Your task to perform on an android device: Open eBay Image 0: 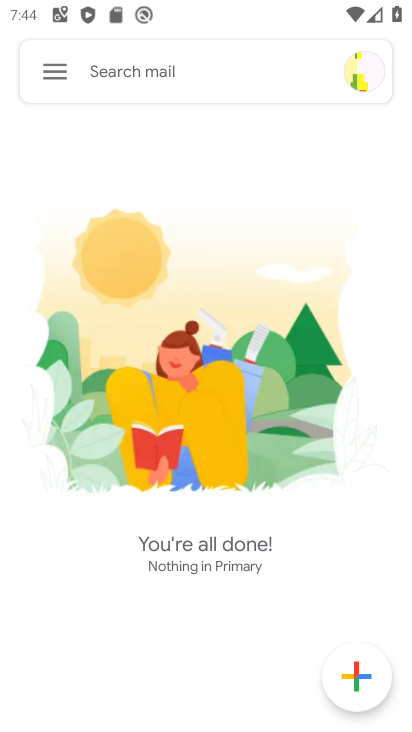
Step 0: press home button
Your task to perform on an android device: Open eBay Image 1: 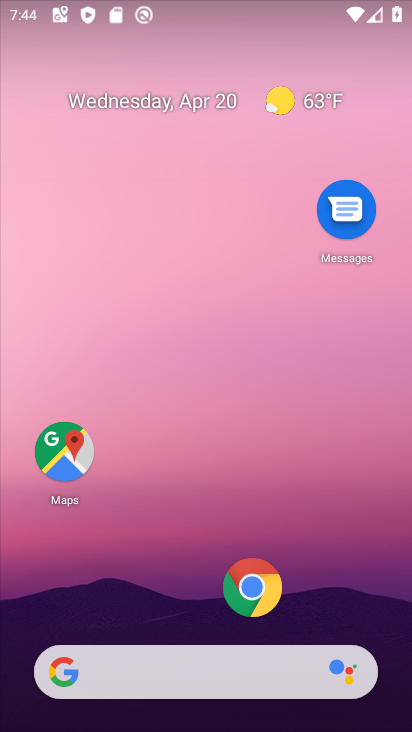
Step 1: drag from (171, 664) to (325, 25)
Your task to perform on an android device: Open eBay Image 2: 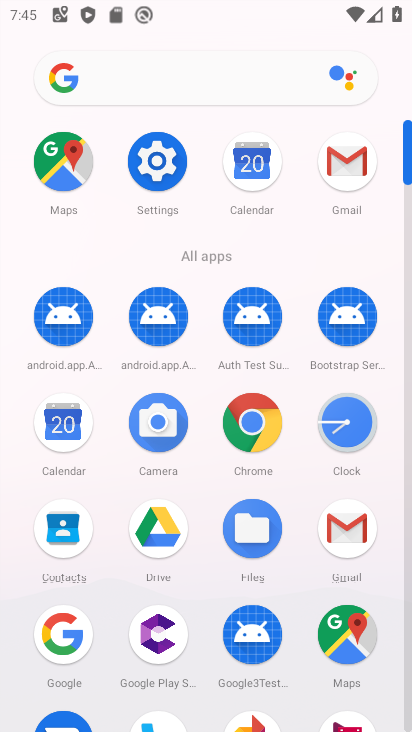
Step 2: click (250, 431)
Your task to perform on an android device: Open eBay Image 3: 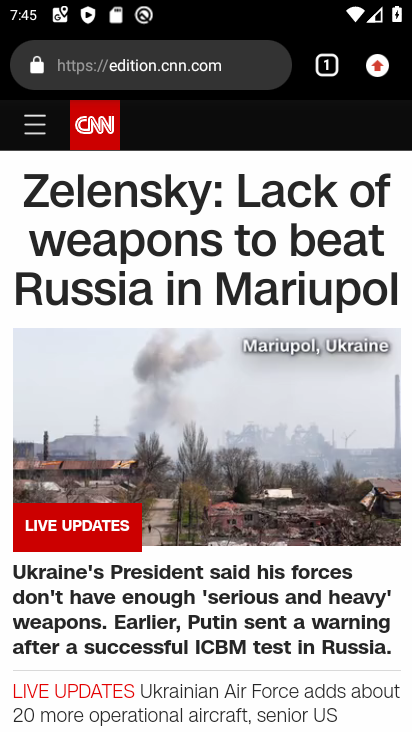
Step 3: click (386, 75)
Your task to perform on an android device: Open eBay Image 4: 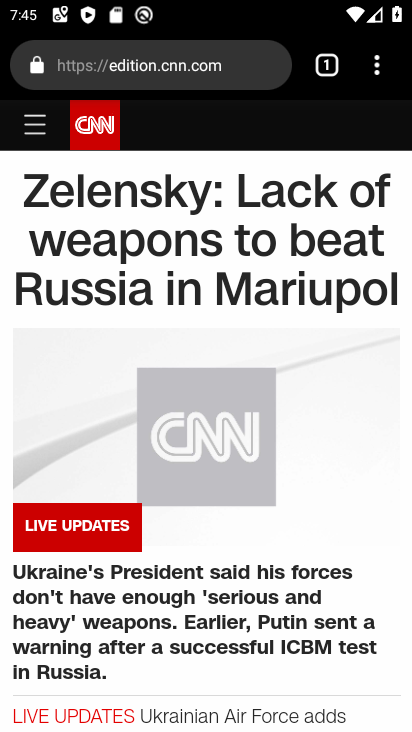
Step 4: click (374, 81)
Your task to perform on an android device: Open eBay Image 5: 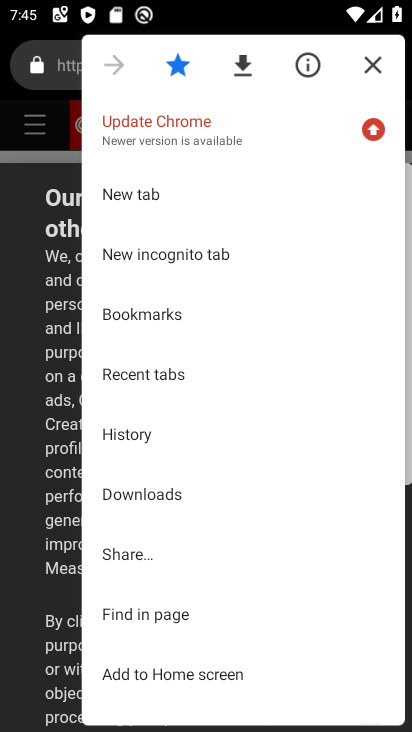
Step 5: click (133, 188)
Your task to perform on an android device: Open eBay Image 6: 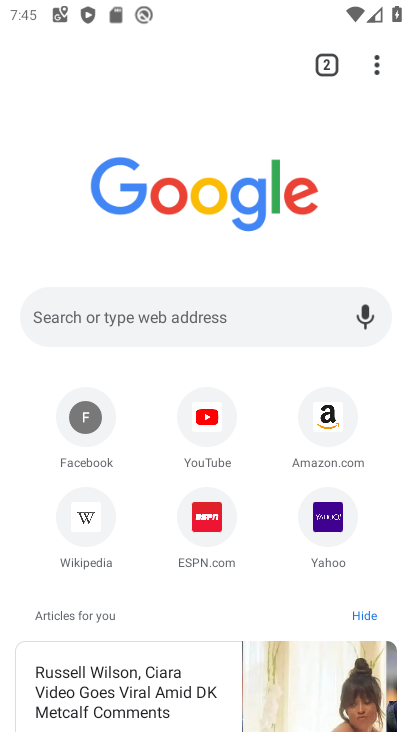
Step 6: click (62, 313)
Your task to perform on an android device: Open eBay Image 7: 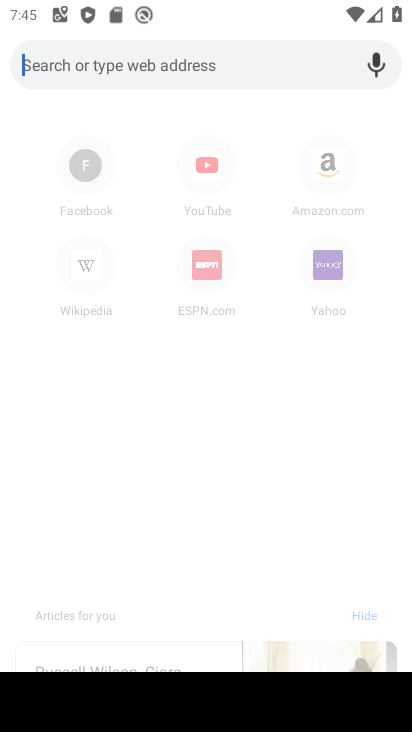
Step 7: type "ebay"
Your task to perform on an android device: Open eBay Image 8: 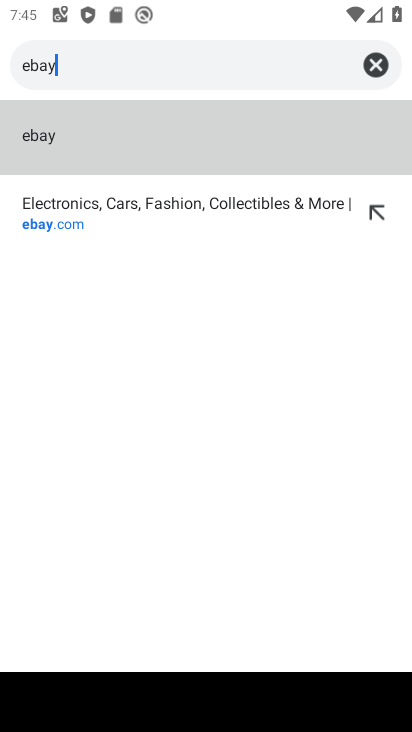
Step 8: click (32, 132)
Your task to perform on an android device: Open eBay Image 9: 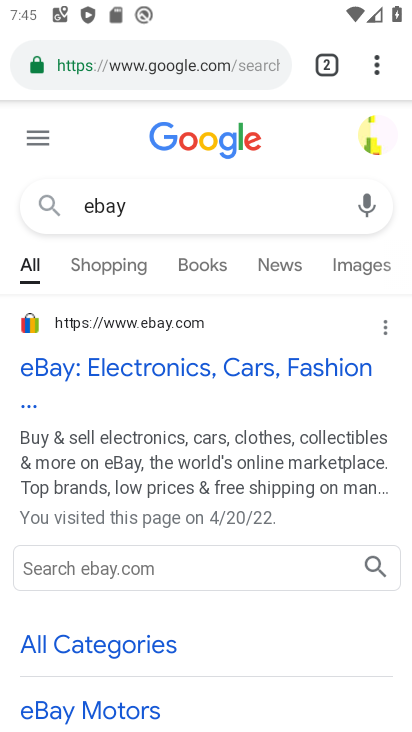
Step 9: click (94, 362)
Your task to perform on an android device: Open eBay Image 10: 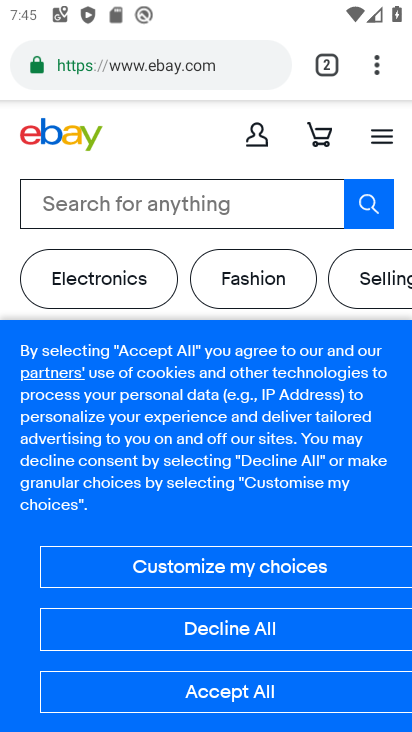
Step 10: task complete